Your task to perform on an android device: turn on location history Image 0: 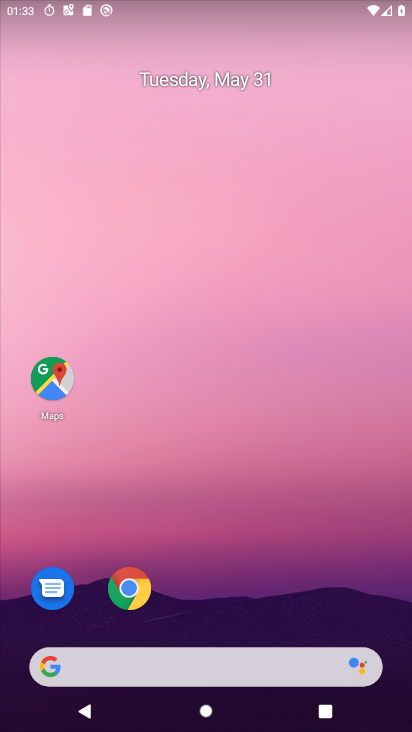
Step 0: drag from (240, 704) to (253, 109)
Your task to perform on an android device: turn on location history Image 1: 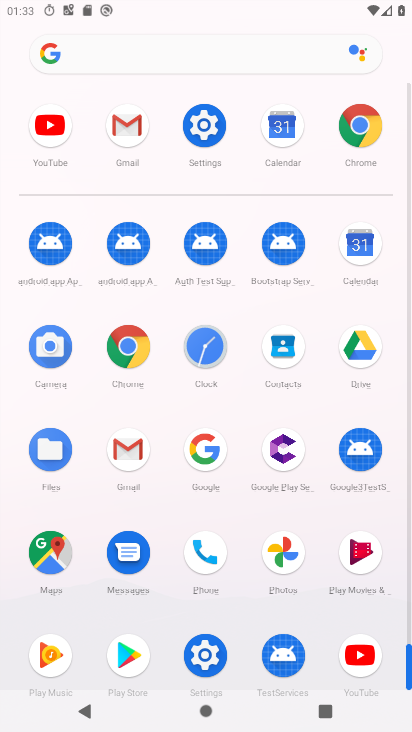
Step 1: click (195, 133)
Your task to perform on an android device: turn on location history Image 2: 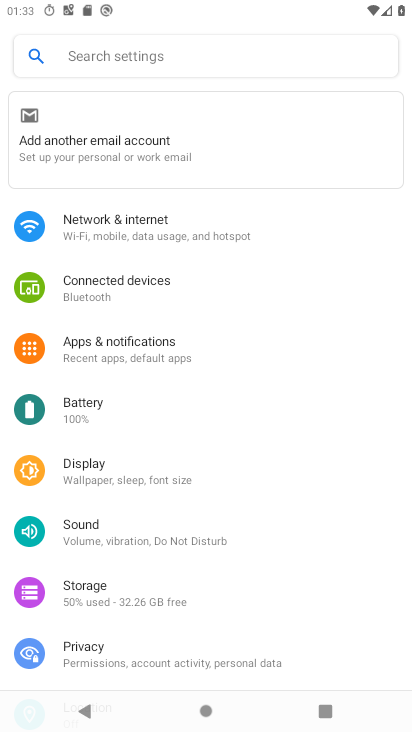
Step 2: drag from (124, 665) to (154, 379)
Your task to perform on an android device: turn on location history Image 3: 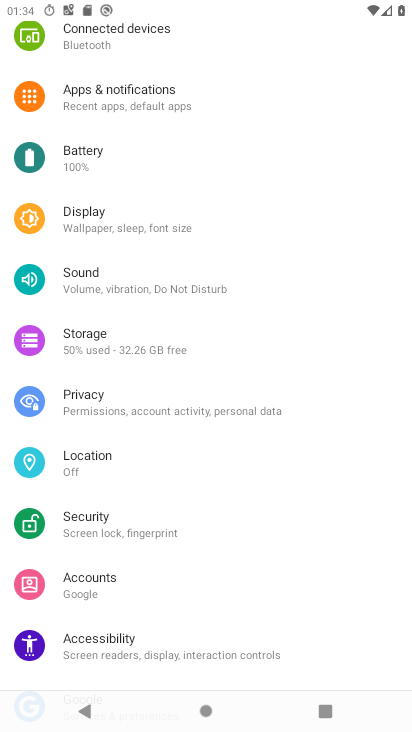
Step 3: click (126, 465)
Your task to perform on an android device: turn on location history Image 4: 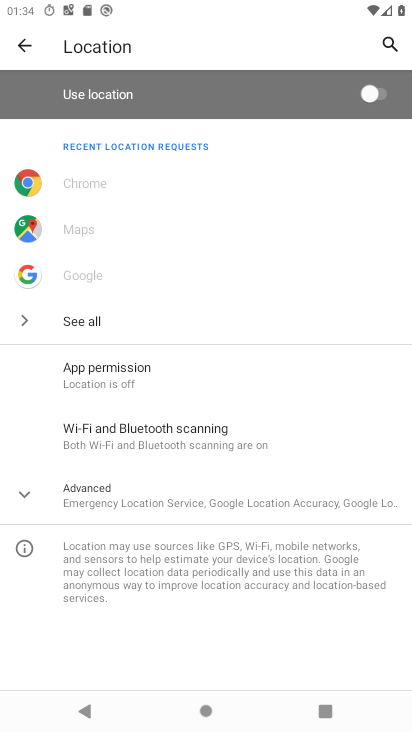
Step 4: click (158, 487)
Your task to perform on an android device: turn on location history Image 5: 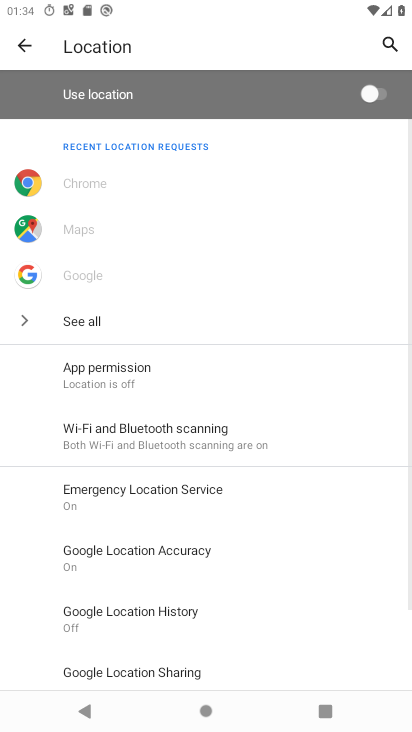
Step 5: click (136, 627)
Your task to perform on an android device: turn on location history Image 6: 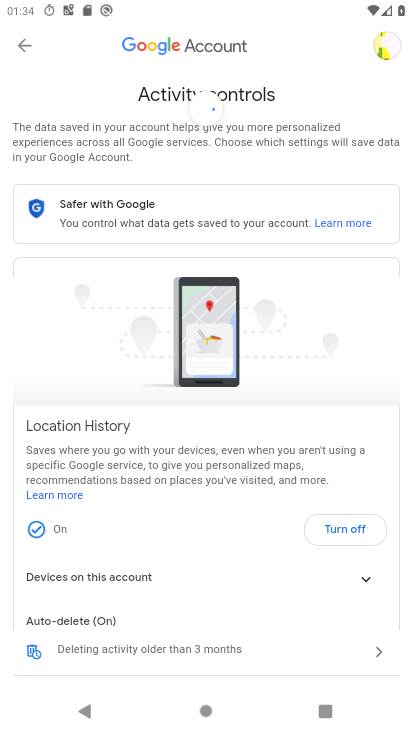
Step 6: task complete